Your task to perform on an android device: turn on wifi Image 0: 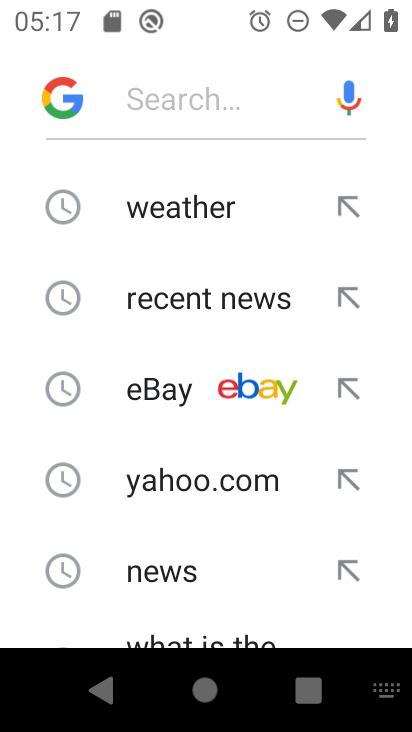
Step 0: drag from (175, 12) to (156, 717)
Your task to perform on an android device: turn on wifi Image 1: 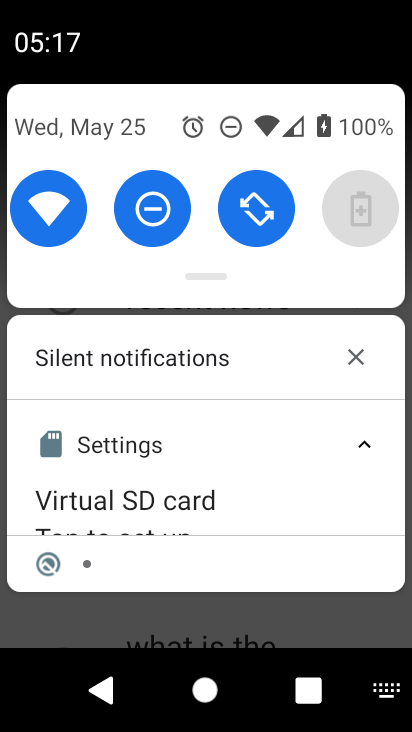
Step 1: task complete